Your task to perform on an android device: What's on my calendar today? Image 0: 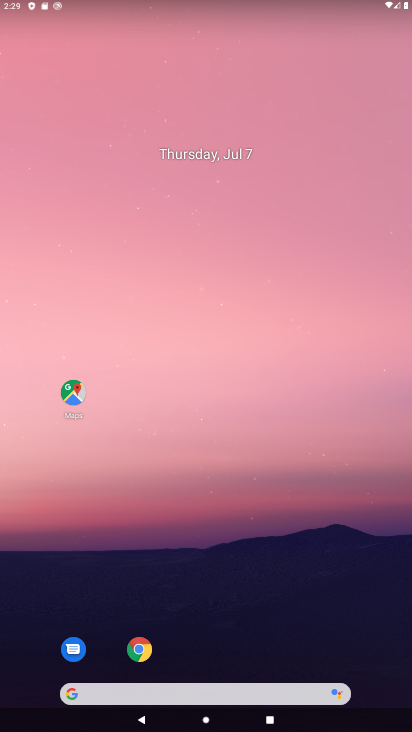
Step 0: drag from (241, 630) to (249, 51)
Your task to perform on an android device: What's on my calendar today? Image 1: 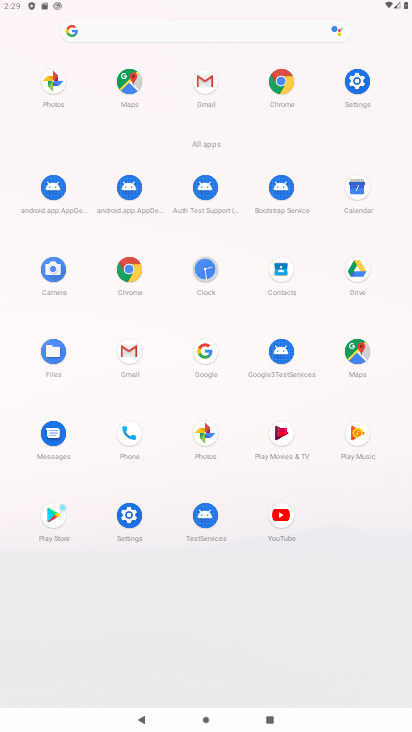
Step 1: click (357, 191)
Your task to perform on an android device: What's on my calendar today? Image 2: 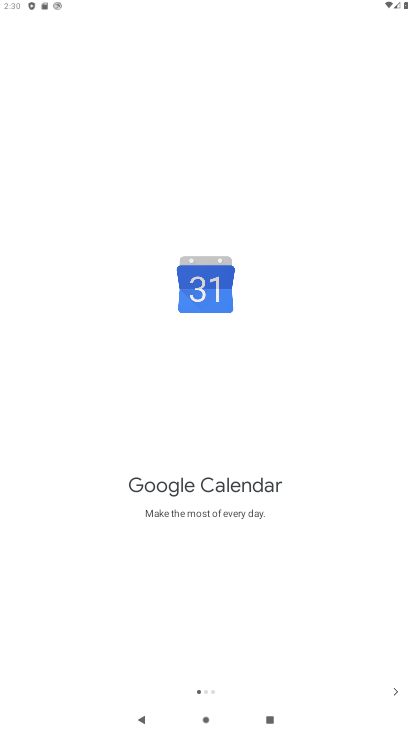
Step 2: click (381, 689)
Your task to perform on an android device: What's on my calendar today? Image 3: 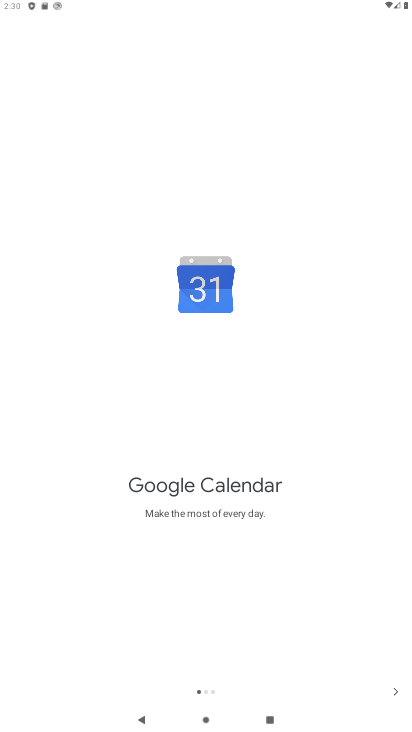
Step 3: click (402, 693)
Your task to perform on an android device: What's on my calendar today? Image 4: 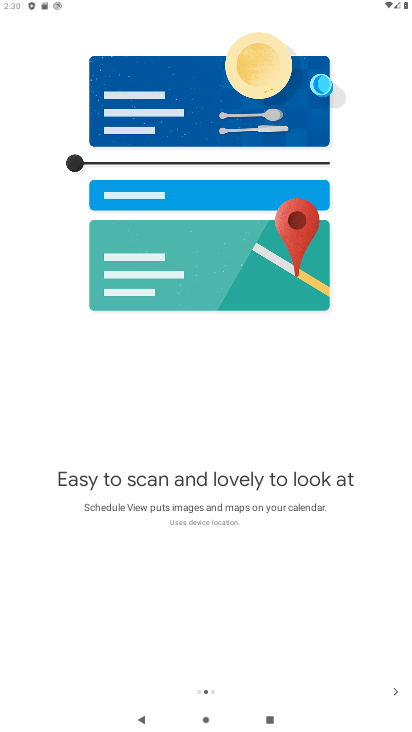
Step 4: click (394, 692)
Your task to perform on an android device: What's on my calendar today? Image 5: 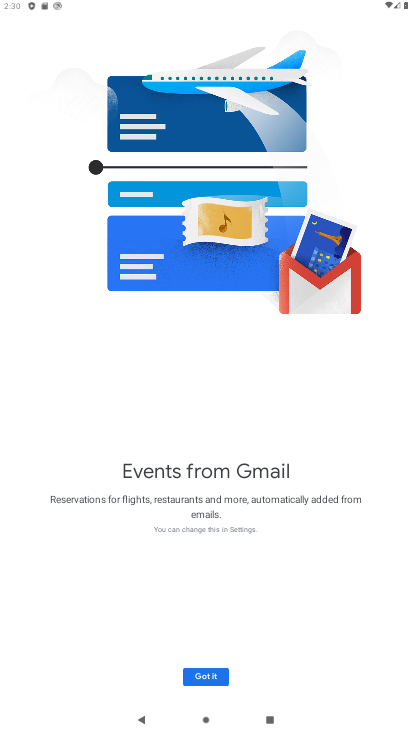
Step 5: click (221, 674)
Your task to perform on an android device: What's on my calendar today? Image 6: 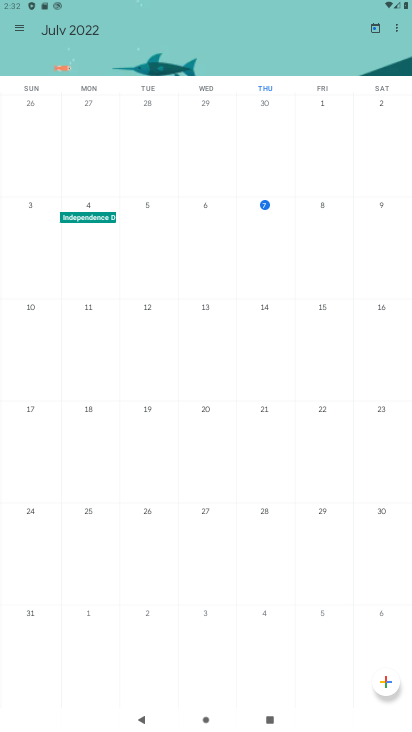
Step 6: click (19, 21)
Your task to perform on an android device: What's on my calendar today? Image 7: 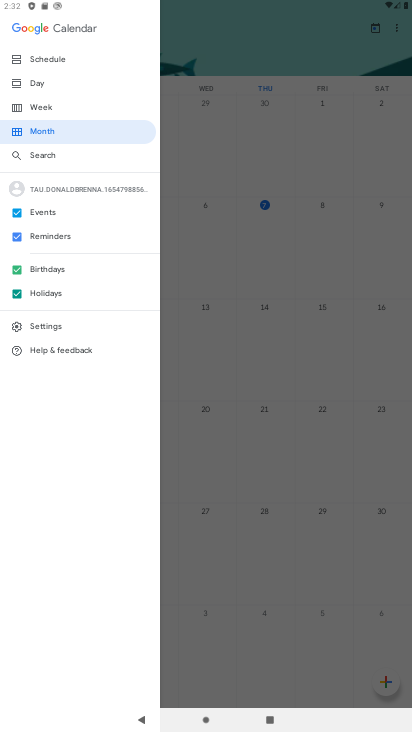
Step 7: click (57, 52)
Your task to perform on an android device: What's on my calendar today? Image 8: 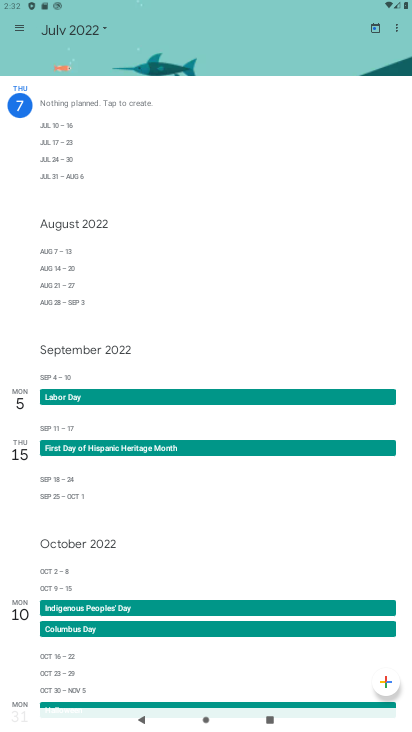
Step 8: task complete